Your task to perform on an android device: Search for the best rated Bluetooth earbuds on Ali express Image 0: 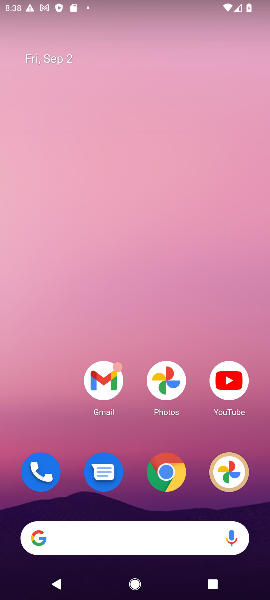
Step 0: drag from (142, 530) to (161, 81)
Your task to perform on an android device: Search for the best rated Bluetooth earbuds on Ali express Image 1: 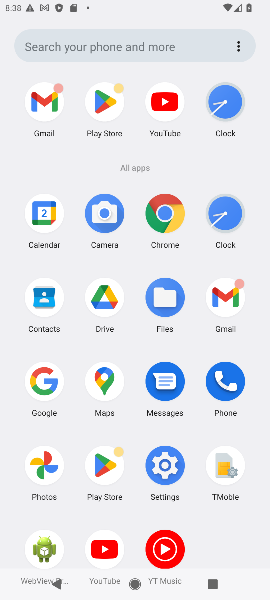
Step 1: click (45, 371)
Your task to perform on an android device: Search for the best rated Bluetooth earbuds on Ali express Image 2: 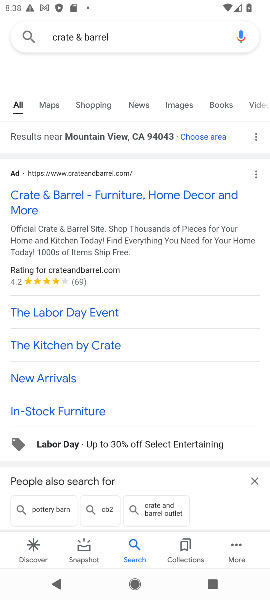
Step 2: click (106, 41)
Your task to perform on an android device: Search for the best rated Bluetooth earbuds on Ali express Image 3: 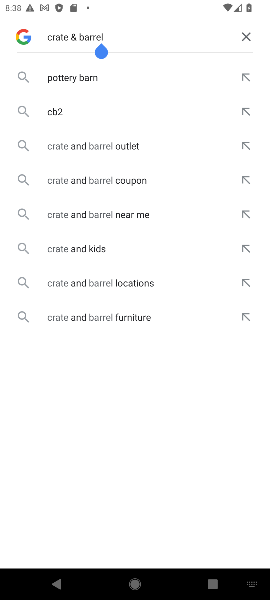
Step 3: click (249, 36)
Your task to perform on an android device: Search for the best rated Bluetooth earbuds on Ali express Image 4: 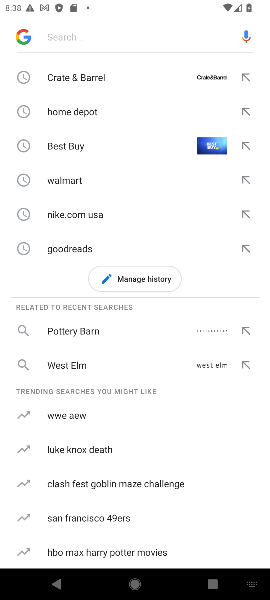
Step 4: type "Ali express"
Your task to perform on an android device: Search for the best rated Bluetooth earbuds on Ali express Image 5: 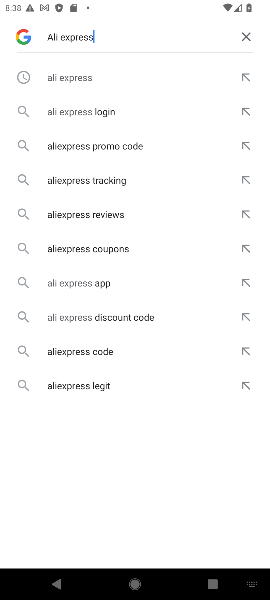
Step 5: click (82, 81)
Your task to perform on an android device: Search for the best rated Bluetooth earbuds on Ali express Image 6: 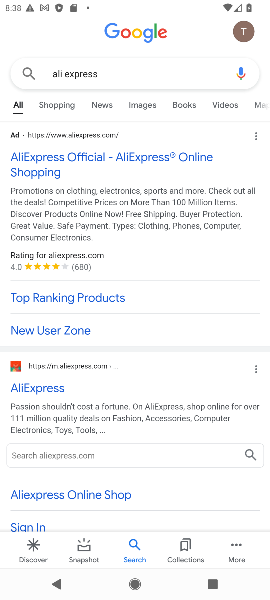
Step 6: click (53, 157)
Your task to perform on an android device: Search for the best rated Bluetooth earbuds on Ali express Image 7: 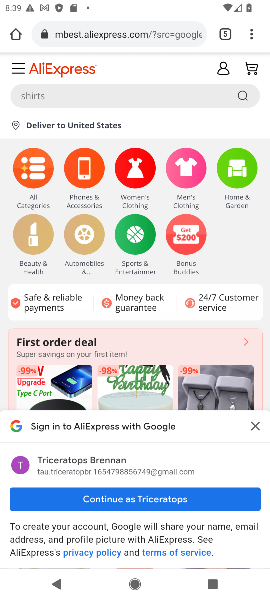
Step 7: click (85, 94)
Your task to perform on an android device: Search for the best rated Bluetooth earbuds on Ali express Image 8: 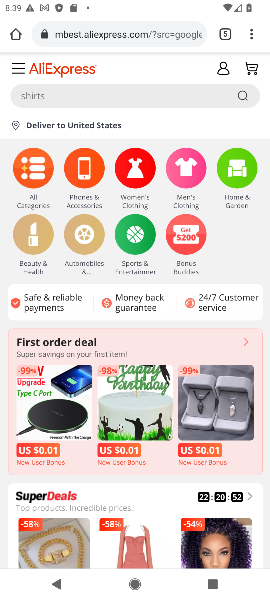
Step 8: click (46, 99)
Your task to perform on an android device: Search for the best rated Bluetooth earbuds on Ali express Image 9: 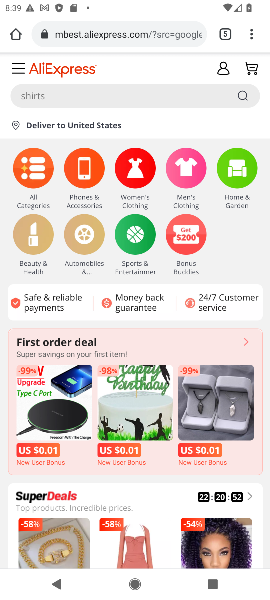
Step 9: type "best rated Bluetooth earbuds"
Your task to perform on an android device: Search for the best rated Bluetooth earbuds on Ali express Image 10: 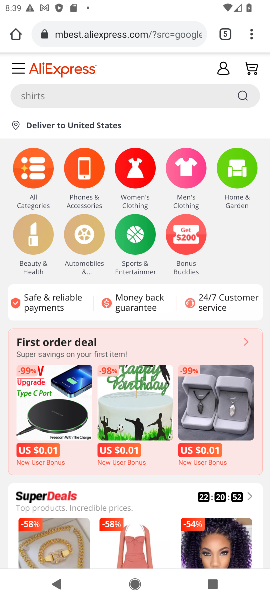
Step 10: click (46, 99)
Your task to perform on an android device: Search for the best rated Bluetooth earbuds on Ali express Image 11: 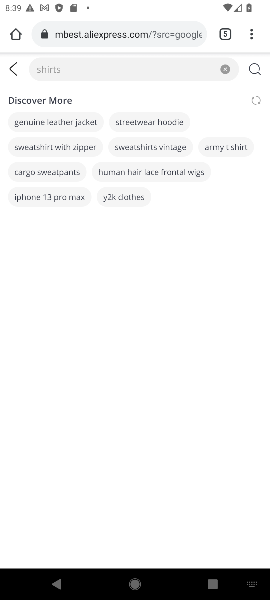
Step 11: type "best rated Bluetooth earbuds"
Your task to perform on an android device: Search for the best rated Bluetooth earbuds on Ali express Image 12: 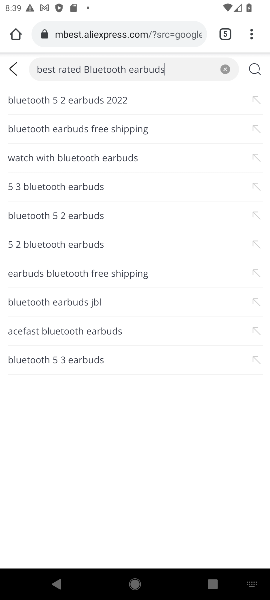
Step 12: click (79, 98)
Your task to perform on an android device: Search for the best rated Bluetooth earbuds on Ali express Image 13: 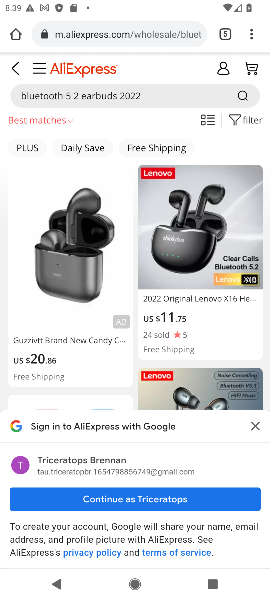
Step 13: task complete